Your task to perform on an android device: change the clock style Image 0: 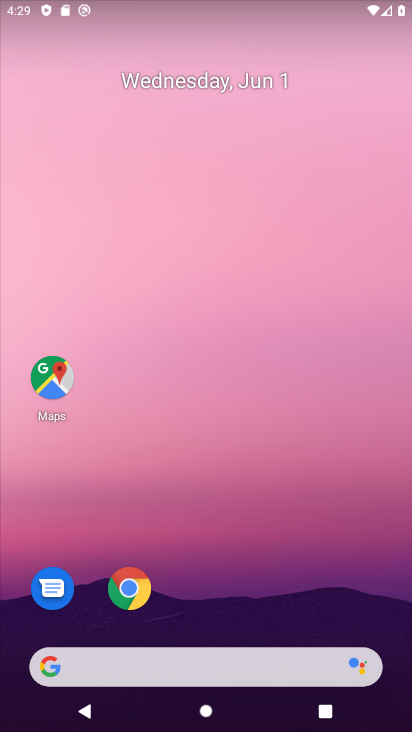
Step 0: drag from (279, 588) to (267, 107)
Your task to perform on an android device: change the clock style Image 1: 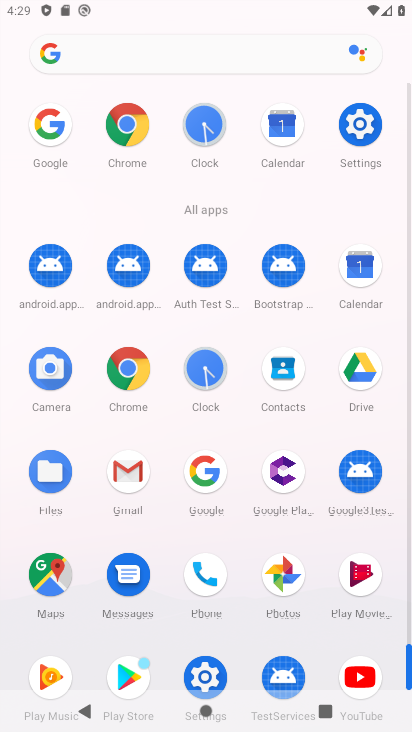
Step 1: click (205, 123)
Your task to perform on an android device: change the clock style Image 2: 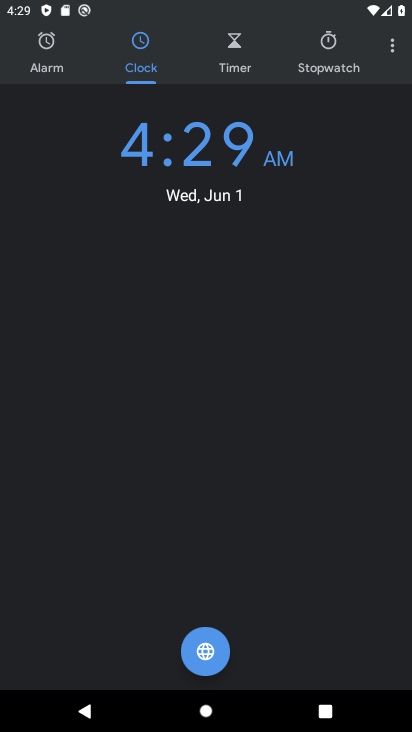
Step 2: click (392, 42)
Your task to perform on an android device: change the clock style Image 3: 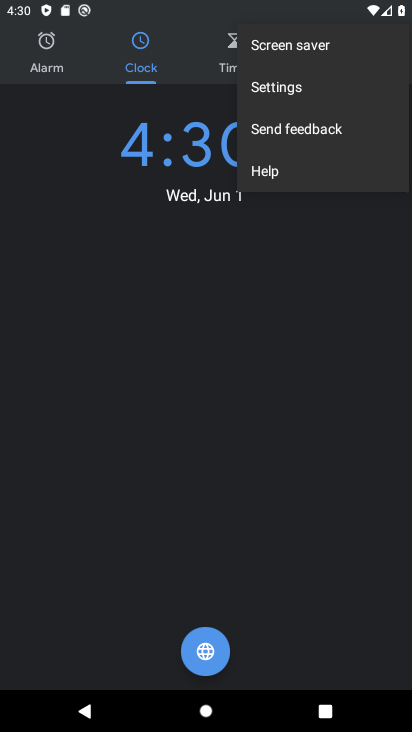
Step 3: click (305, 91)
Your task to perform on an android device: change the clock style Image 4: 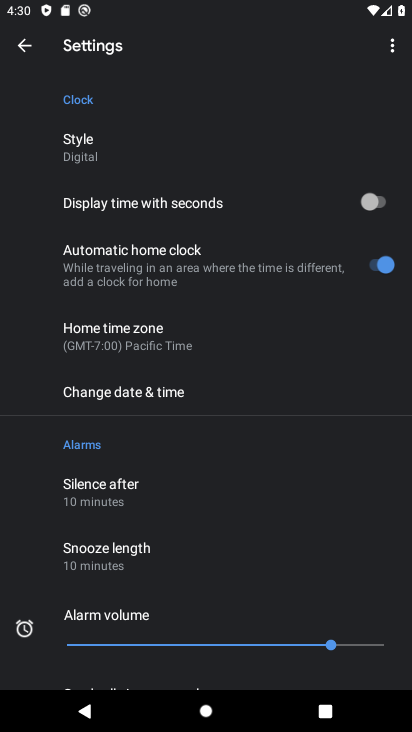
Step 4: click (115, 143)
Your task to perform on an android device: change the clock style Image 5: 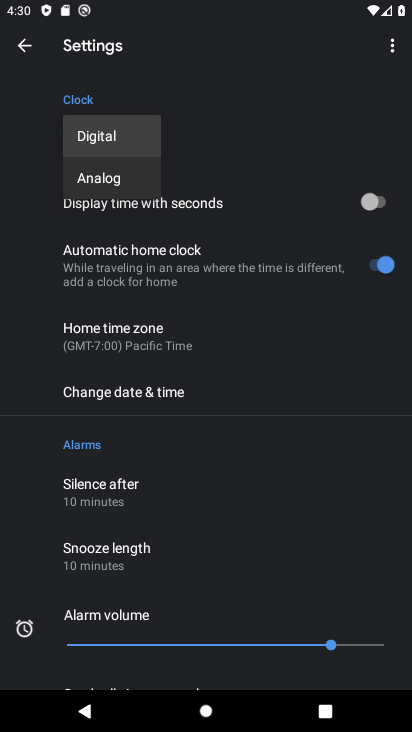
Step 5: click (106, 176)
Your task to perform on an android device: change the clock style Image 6: 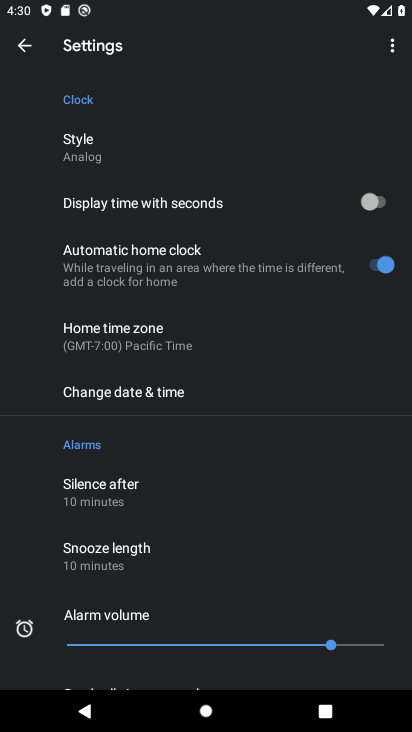
Step 6: task complete